Your task to perform on an android device: Open sound settings Image 0: 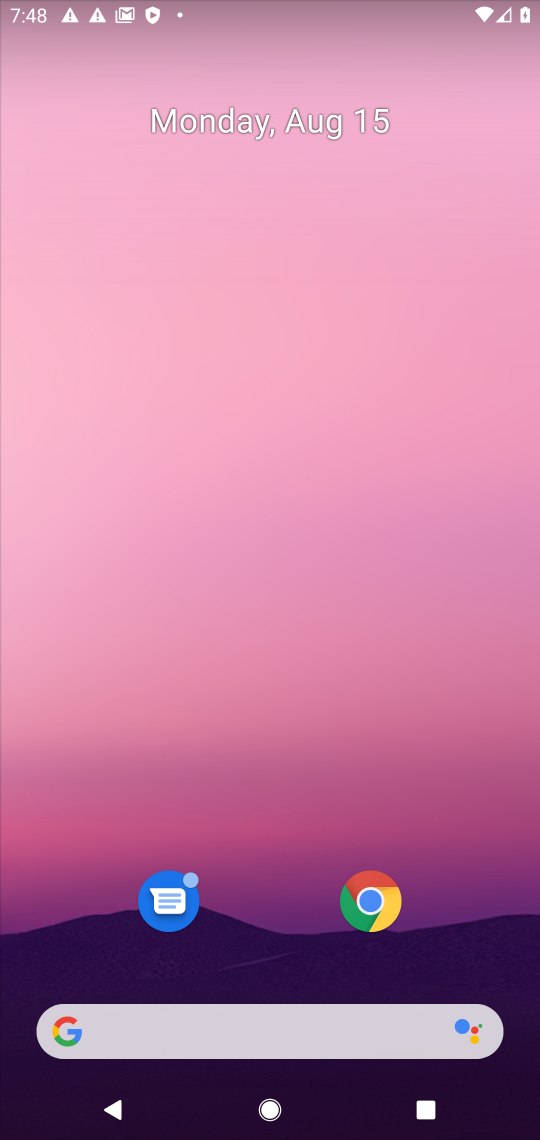
Step 0: drag from (246, 293) to (371, 15)
Your task to perform on an android device: Open sound settings Image 1: 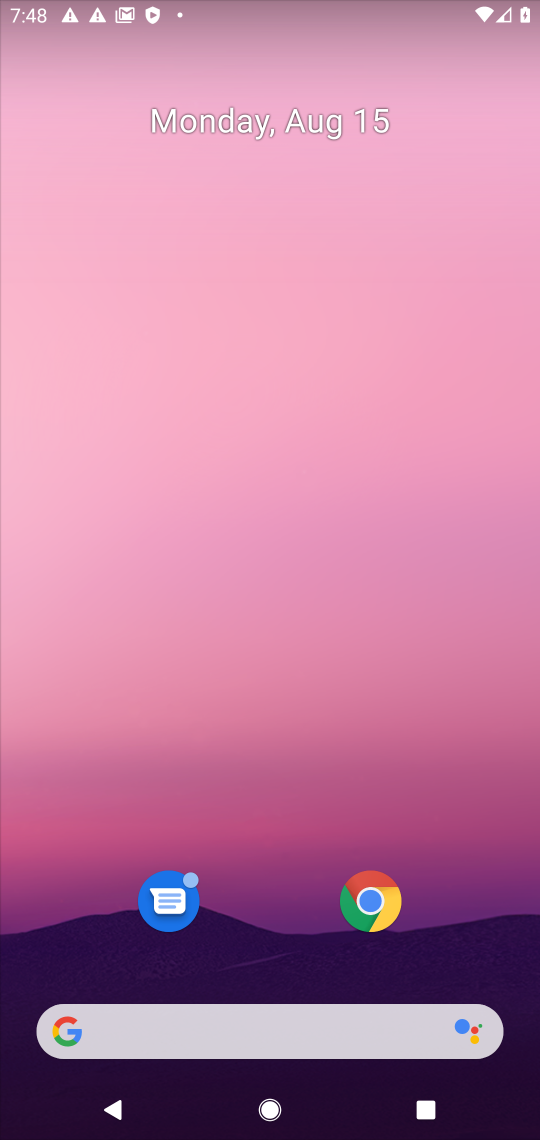
Step 1: drag from (296, 944) to (356, 92)
Your task to perform on an android device: Open sound settings Image 2: 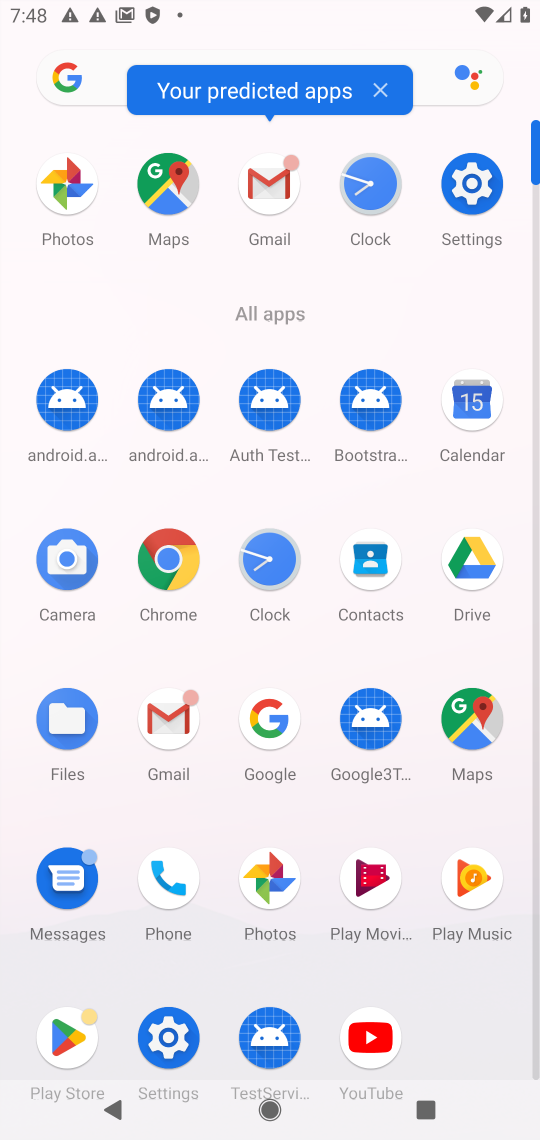
Step 2: click (460, 194)
Your task to perform on an android device: Open sound settings Image 3: 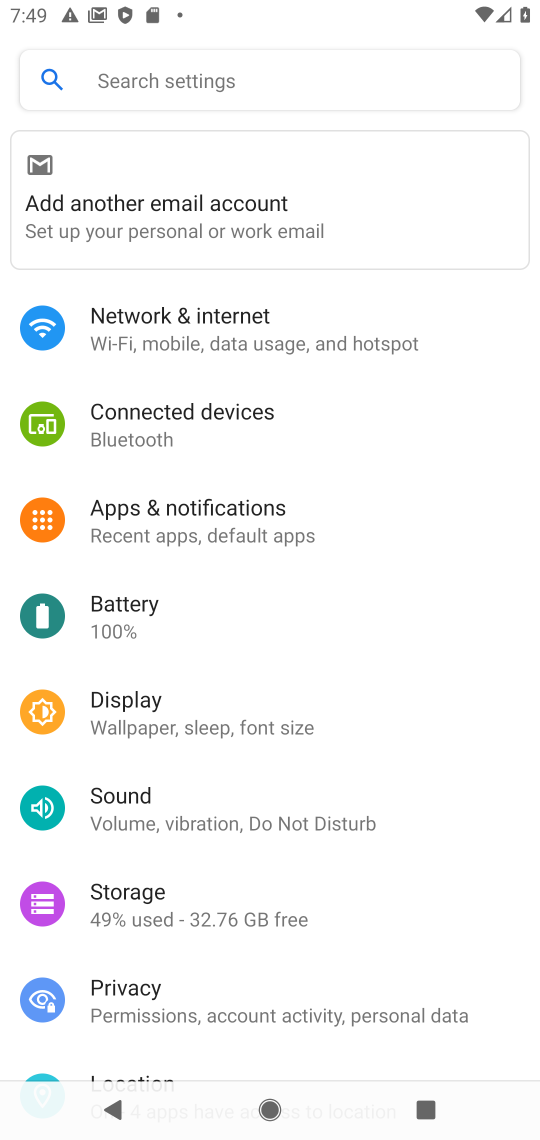
Step 3: click (210, 824)
Your task to perform on an android device: Open sound settings Image 4: 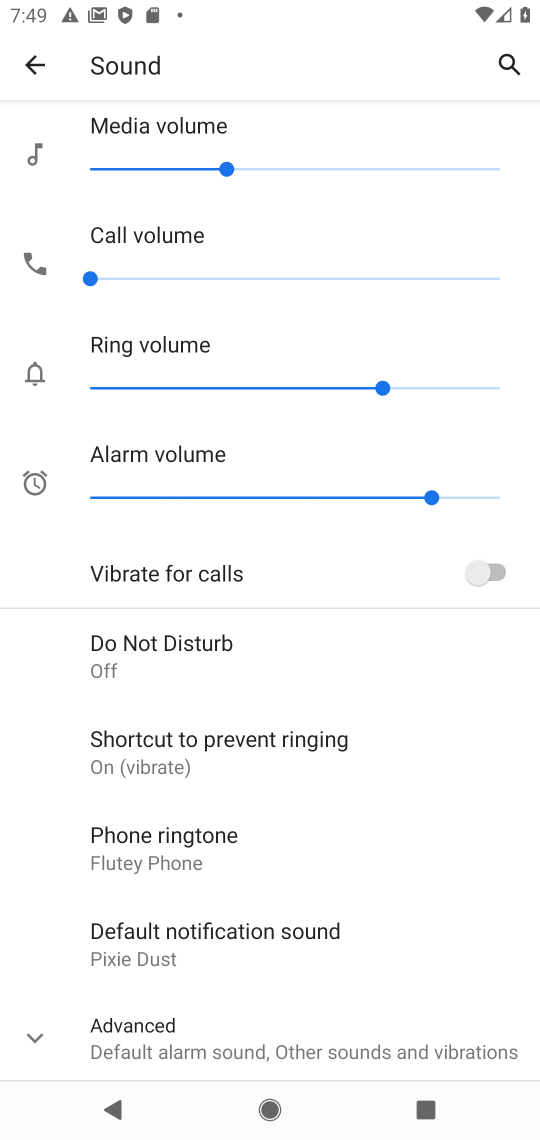
Step 4: task complete